Your task to perform on an android device: Go to calendar. Show me events next week Image 0: 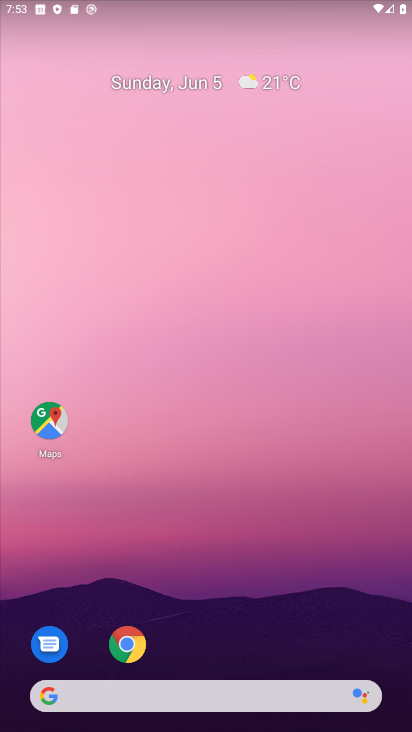
Step 0: drag from (348, 645) to (138, 28)
Your task to perform on an android device: Go to calendar. Show me events next week Image 1: 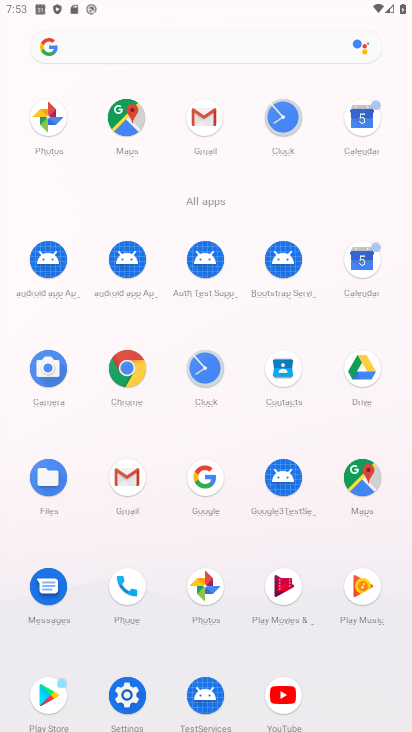
Step 1: click (364, 264)
Your task to perform on an android device: Go to calendar. Show me events next week Image 2: 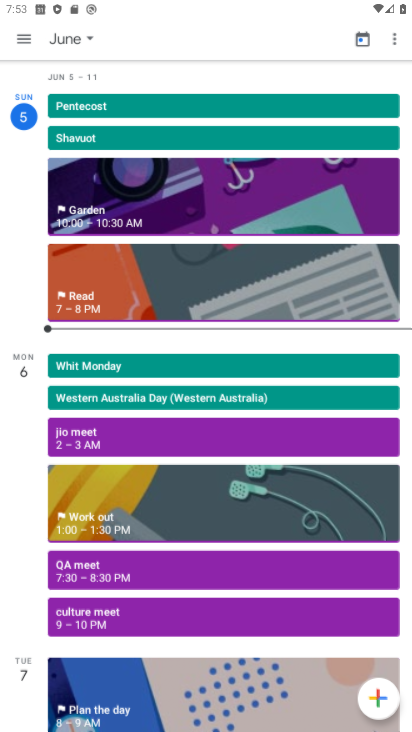
Step 2: task complete